Your task to perform on an android device: Open calendar and show me the second week of next month Image 0: 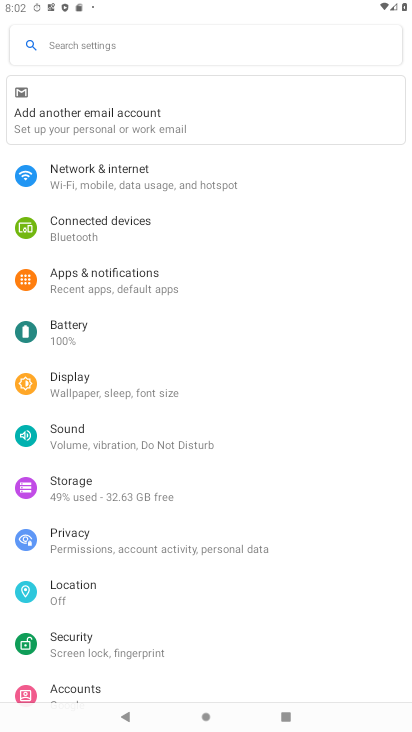
Step 0: click (90, 44)
Your task to perform on an android device: Open calendar and show me the second week of next month Image 1: 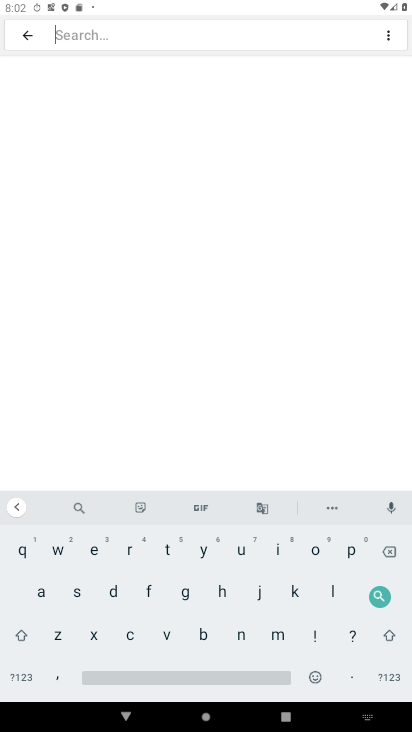
Step 1: press home button
Your task to perform on an android device: Open calendar and show me the second week of next month Image 2: 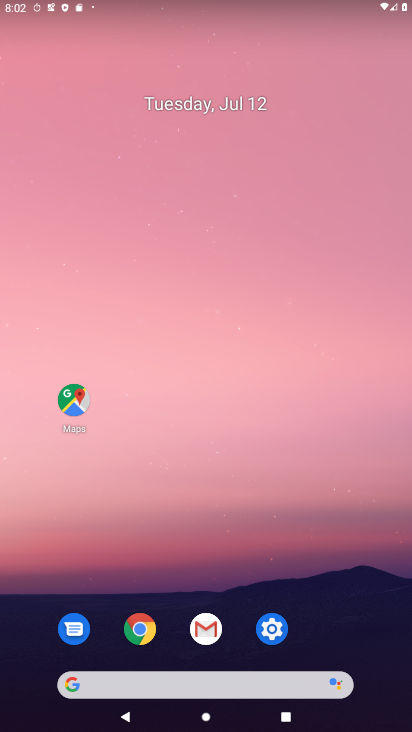
Step 2: drag from (216, 707) to (184, 206)
Your task to perform on an android device: Open calendar and show me the second week of next month Image 3: 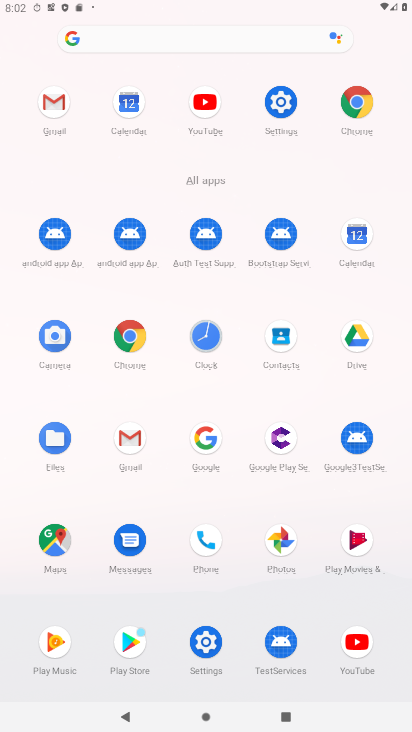
Step 3: click (359, 252)
Your task to perform on an android device: Open calendar and show me the second week of next month Image 4: 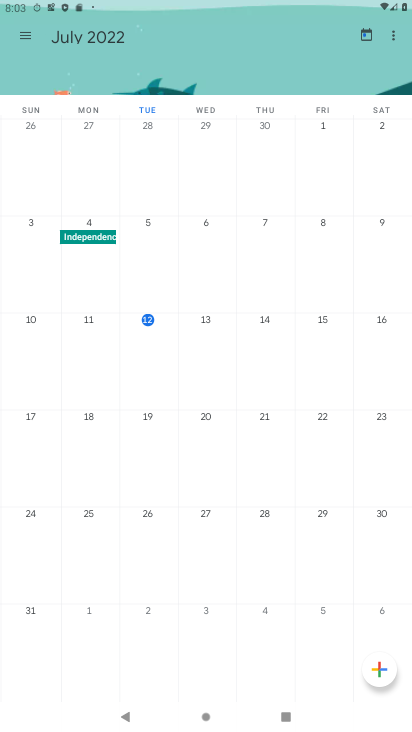
Step 4: drag from (254, 435) to (0, 515)
Your task to perform on an android device: Open calendar and show me the second week of next month Image 5: 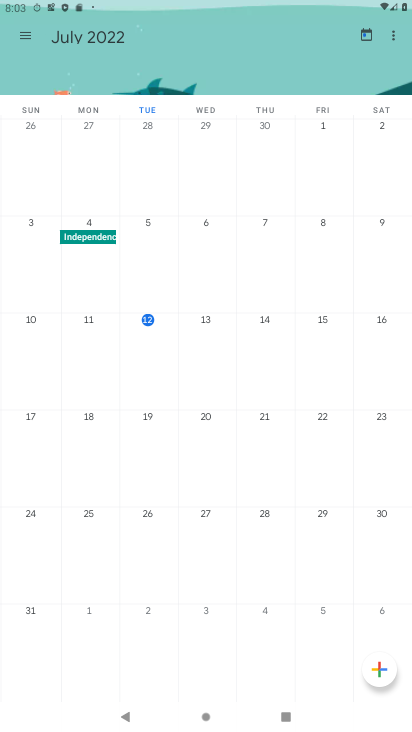
Step 5: drag from (323, 456) to (0, 442)
Your task to perform on an android device: Open calendar and show me the second week of next month Image 6: 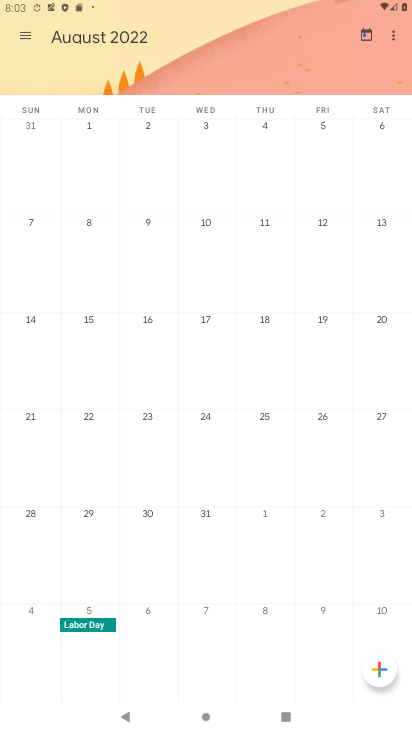
Step 6: click (82, 246)
Your task to perform on an android device: Open calendar and show me the second week of next month Image 7: 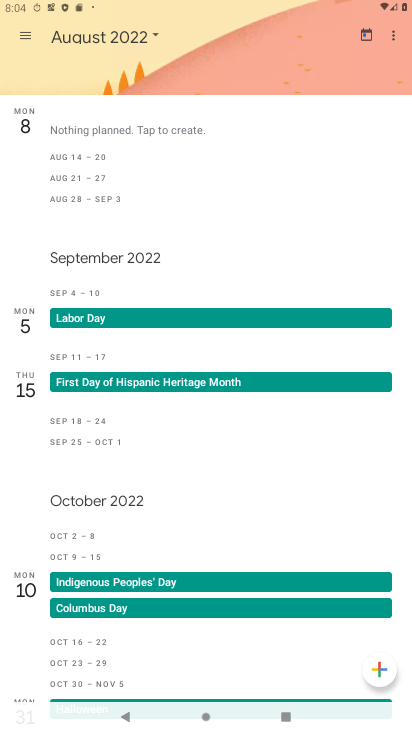
Step 7: task complete